Your task to perform on an android device: open device folders in google photos Image 0: 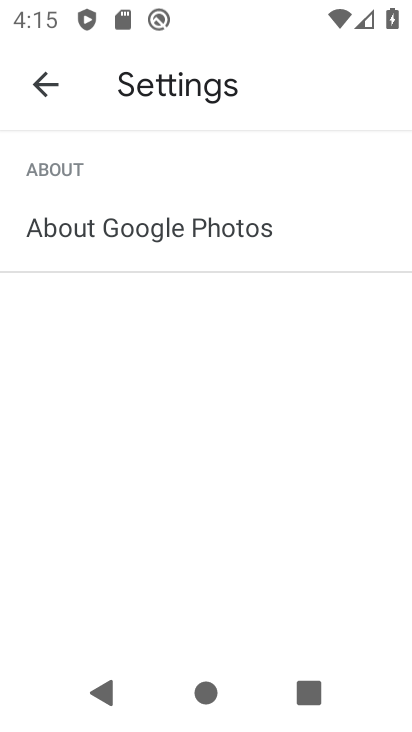
Step 0: press home button
Your task to perform on an android device: open device folders in google photos Image 1: 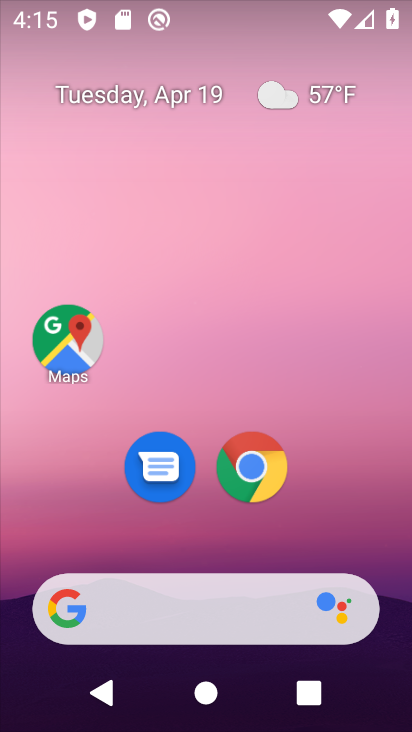
Step 1: drag from (243, 542) to (255, 212)
Your task to perform on an android device: open device folders in google photos Image 2: 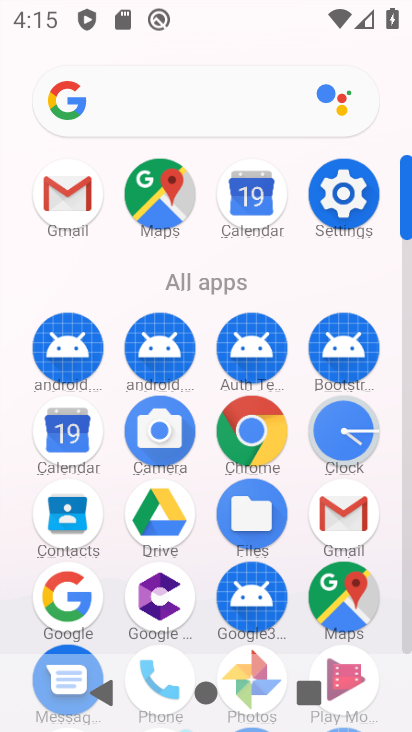
Step 2: drag from (286, 443) to (267, 120)
Your task to perform on an android device: open device folders in google photos Image 3: 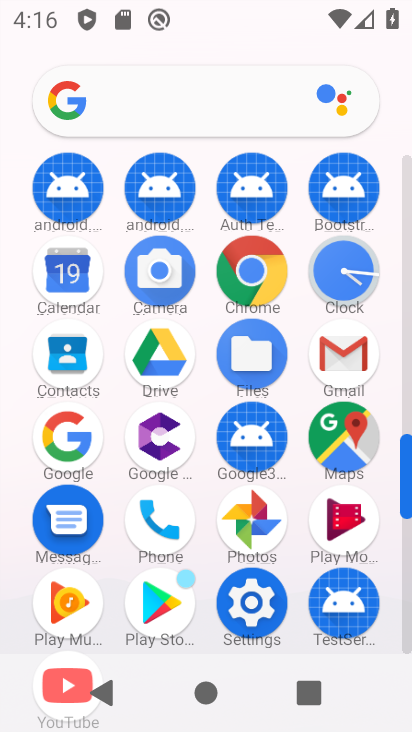
Step 3: click (271, 524)
Your task to perform on an android device: open device folders in google photos Image 4: 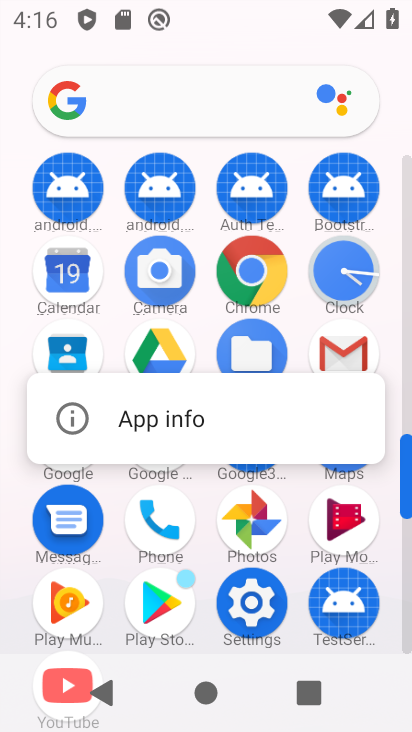
Step 4: click (270, 525)
Your task to perform on an android device: open device folders in google photos Image 5: 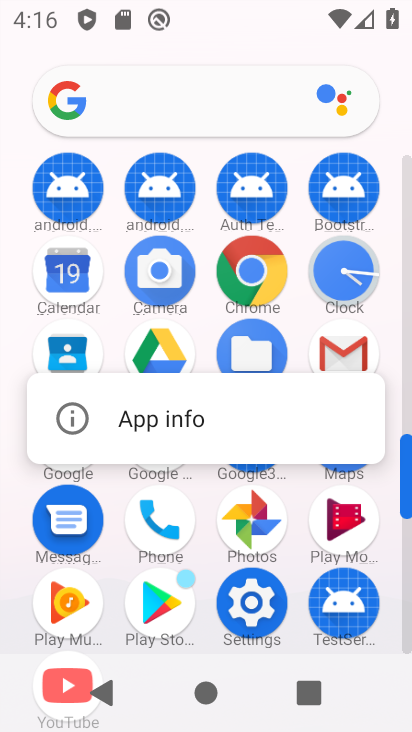
Step 5: click (253, 547)
Your task to perform on an android device: open device folders in google photos Image 6: 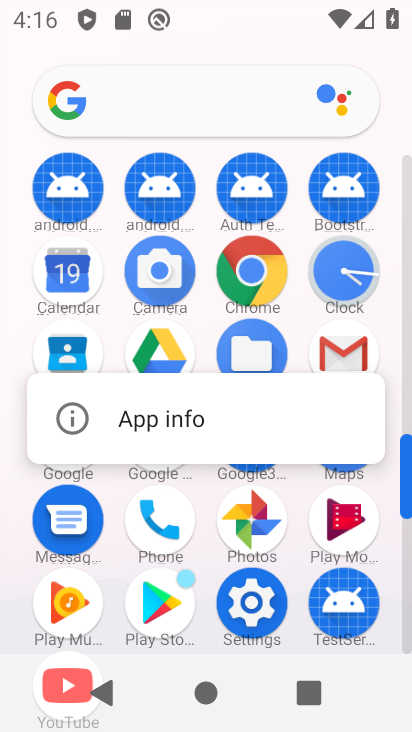
Step 6: click (253, 547)
Your task to perform on an android device: open device folders in google photos Image 7: 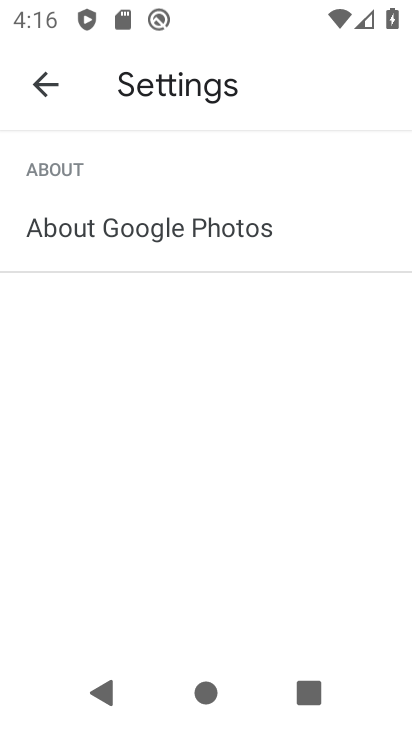
Step 7: click (41, 91)
Your task to perform on an android device: open device folders in google photos Image 8: 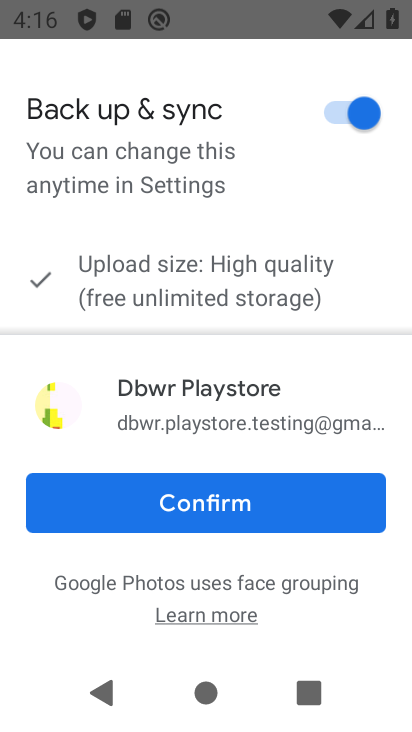
Step 8: click (340, 507)
Your task to perform on an android device: open device folders in google photos Image 9: 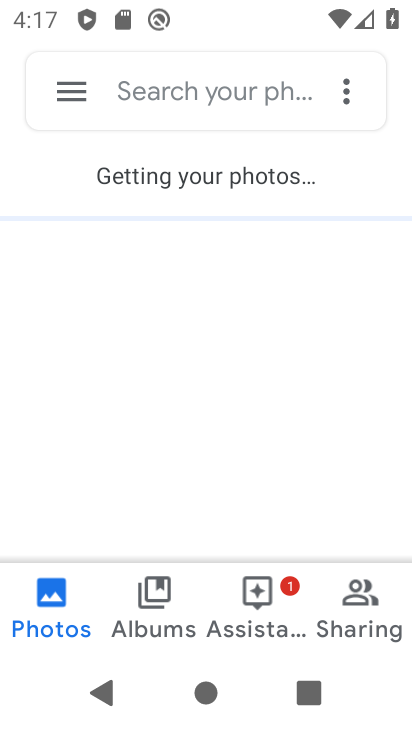
Step 9: click (73, 95)
Your task to perform on an android device: open device folders in google photos Image 10: 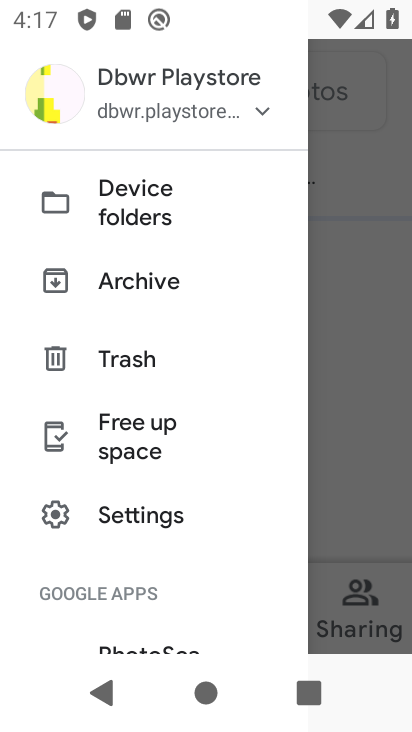
Step 10: click (111, 220)
Your task to perform on an android device: open device folders in google photos Image 11: 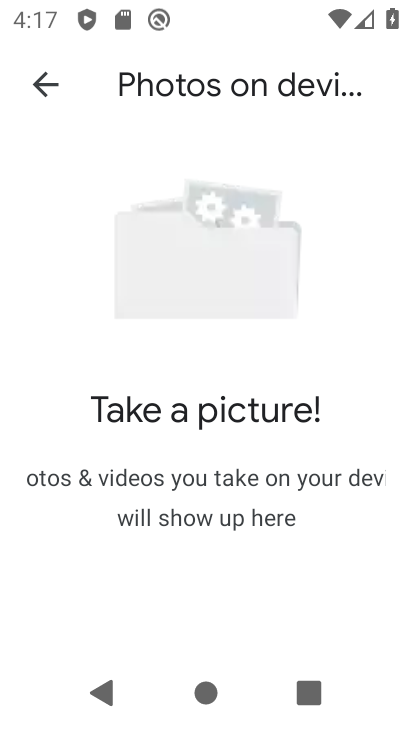
Step 11: click (48, 88)
Your task to perform on an android device: open device folders in google photos Image 12: 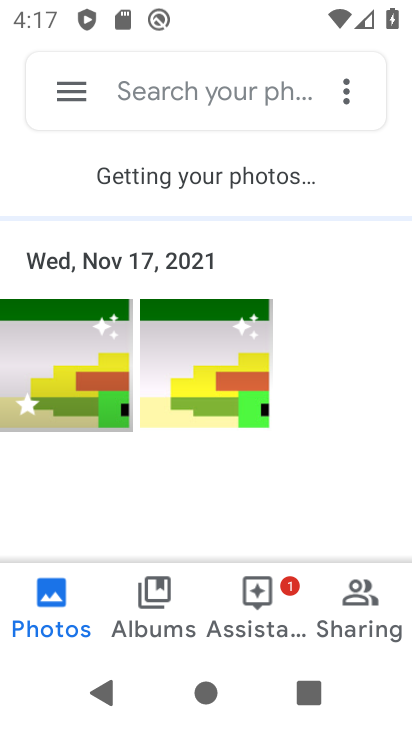
Step 12: task complete